Your task to perform on an android device: Clear the cart on ebay.com. Search for usb-a to usb-b on ebay.com, select the first entry, add it to the cart, then select checkout. Image 0: 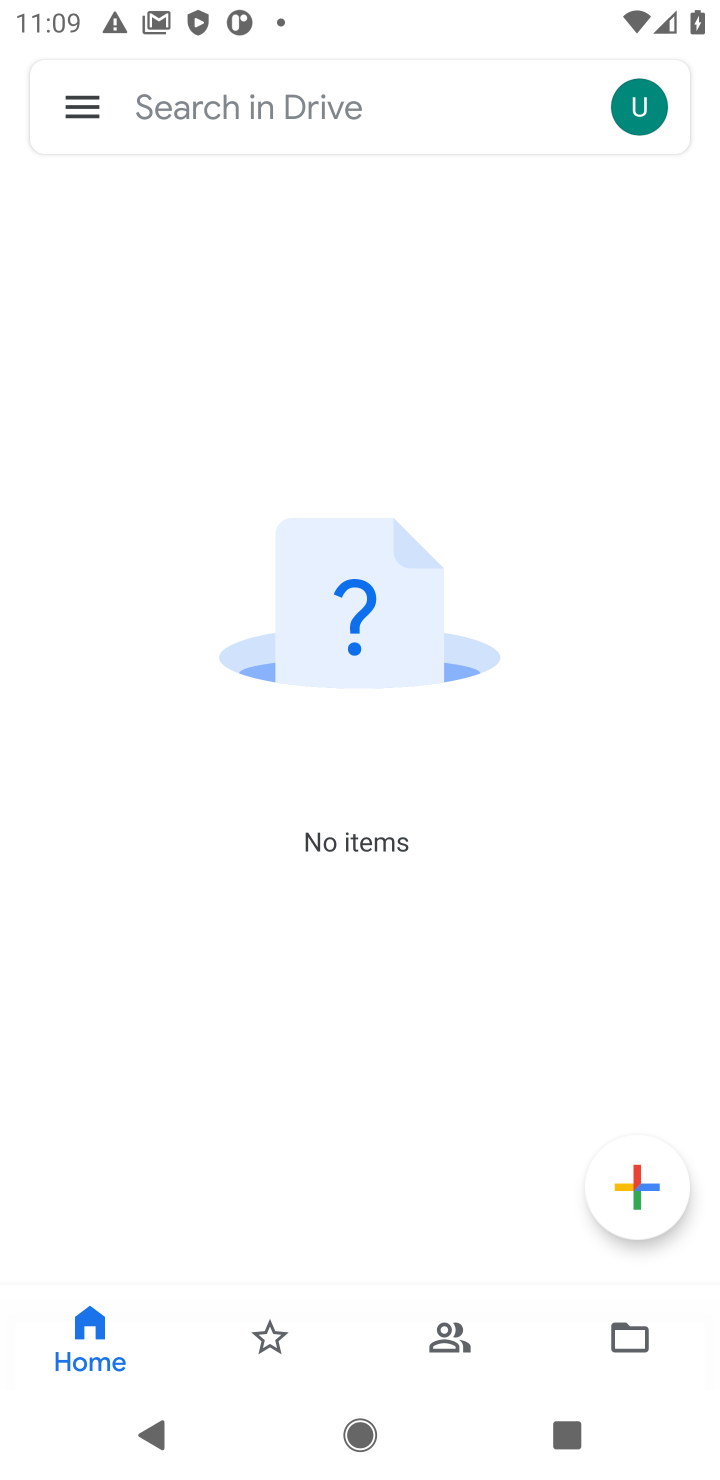
Step 0: press home button
Your task to perform on an android device: Clear the cart on ebay.com. Search for usb-a to usb-b on ebay.com, select the first entry, add it to the cart, then select checkout. Image 1: 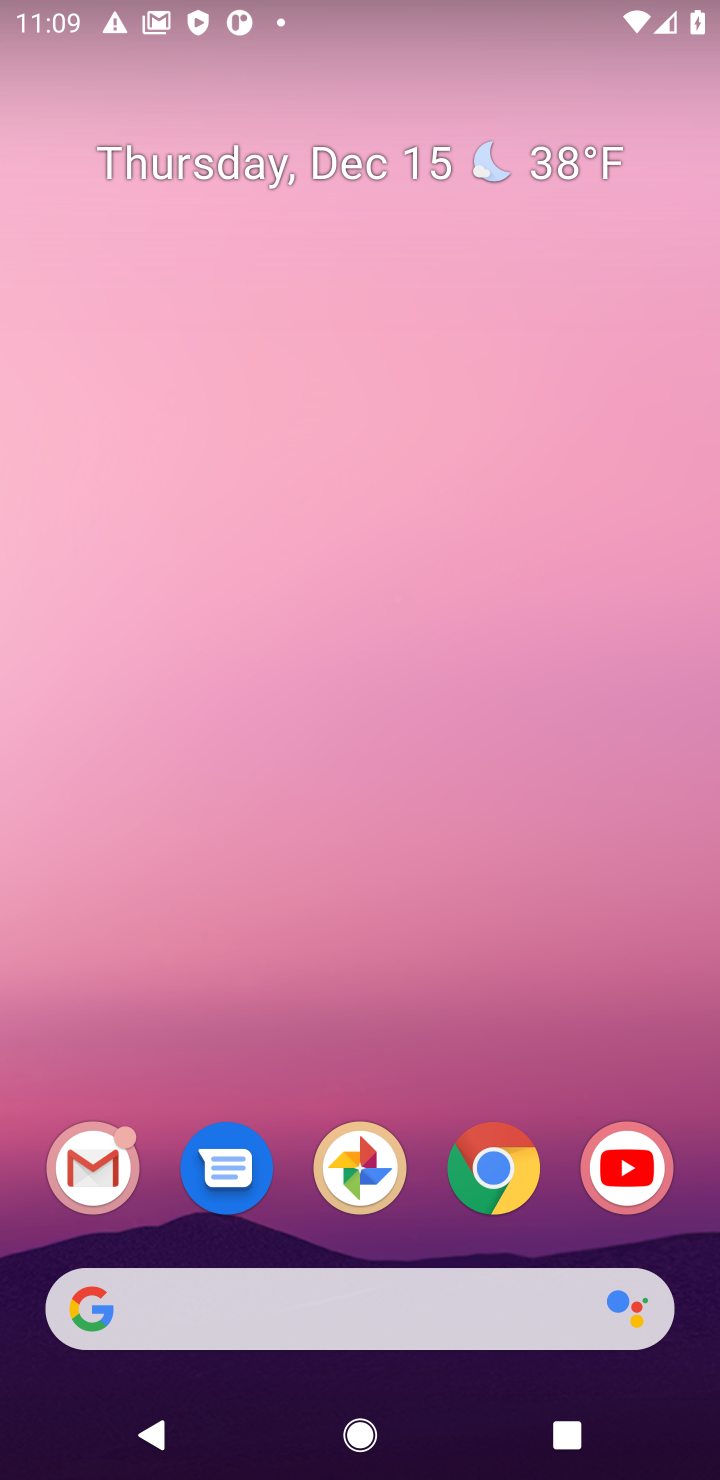
Step 1: click (493, 1175)
Your task to perform on an android device: Clear the cart on ebay.com. Search for usb-a to usb-b on ebay.com, select the first entry, add it to the cart, then select checkout. Image 2: 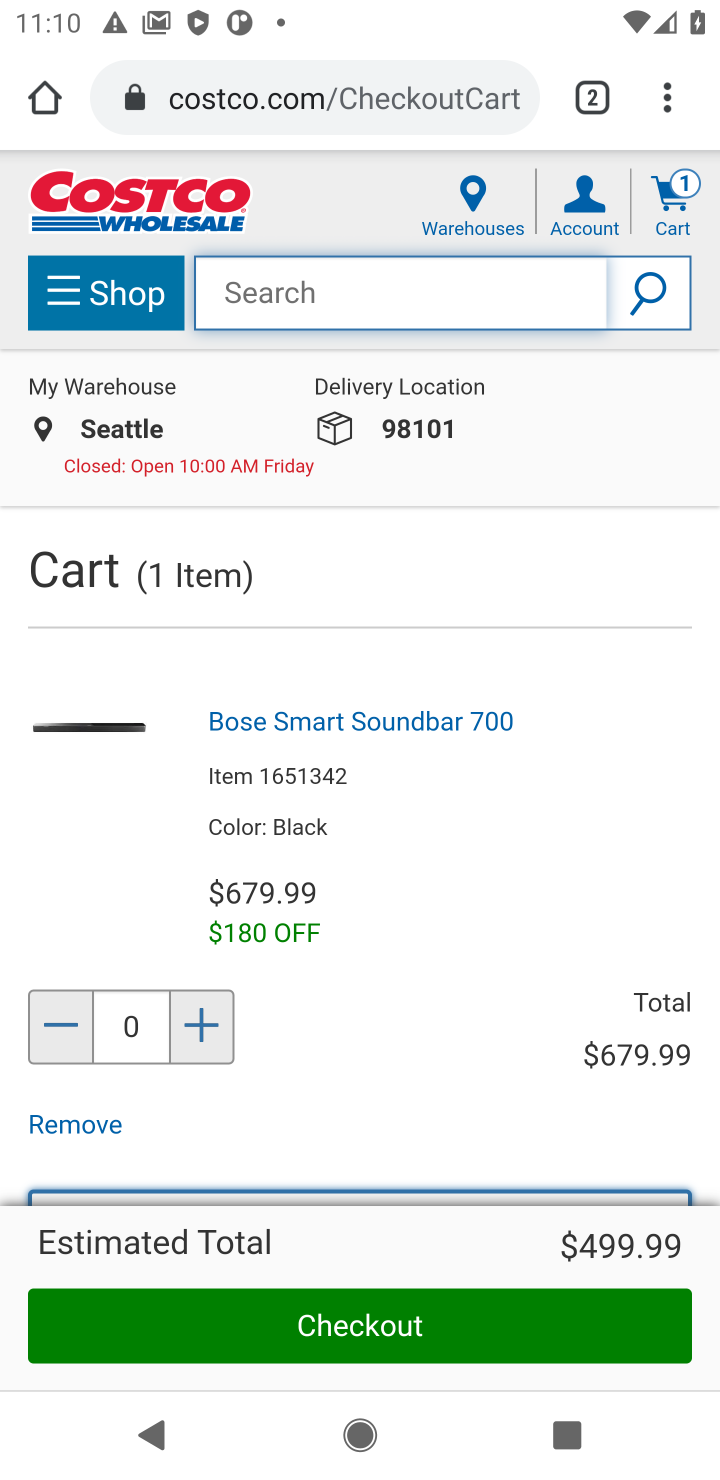
Step 2: click (354, 81)
Your task to perform on an android device: Clear the cart on ebay.com. Search for usb-a to usb-b on ebay.com, select the first entry, add it to the cart, then select checkout. Image 3: 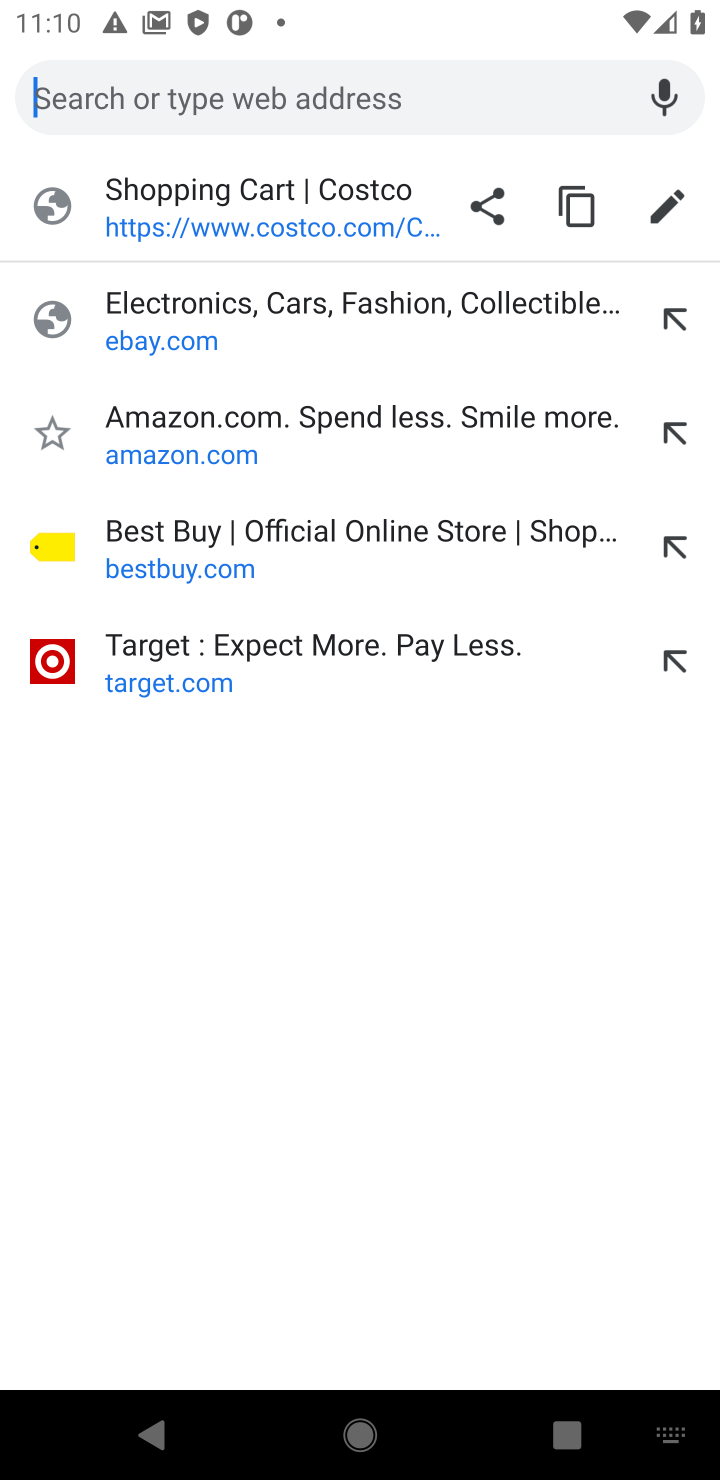
Step 3: type "ebay"
Your task to perform on an android device: Clear the cart on ebay.com. Search for usb-a to usb-b on ebay.com, select the first entry, add it to the cart, then select checkout. Image 4: 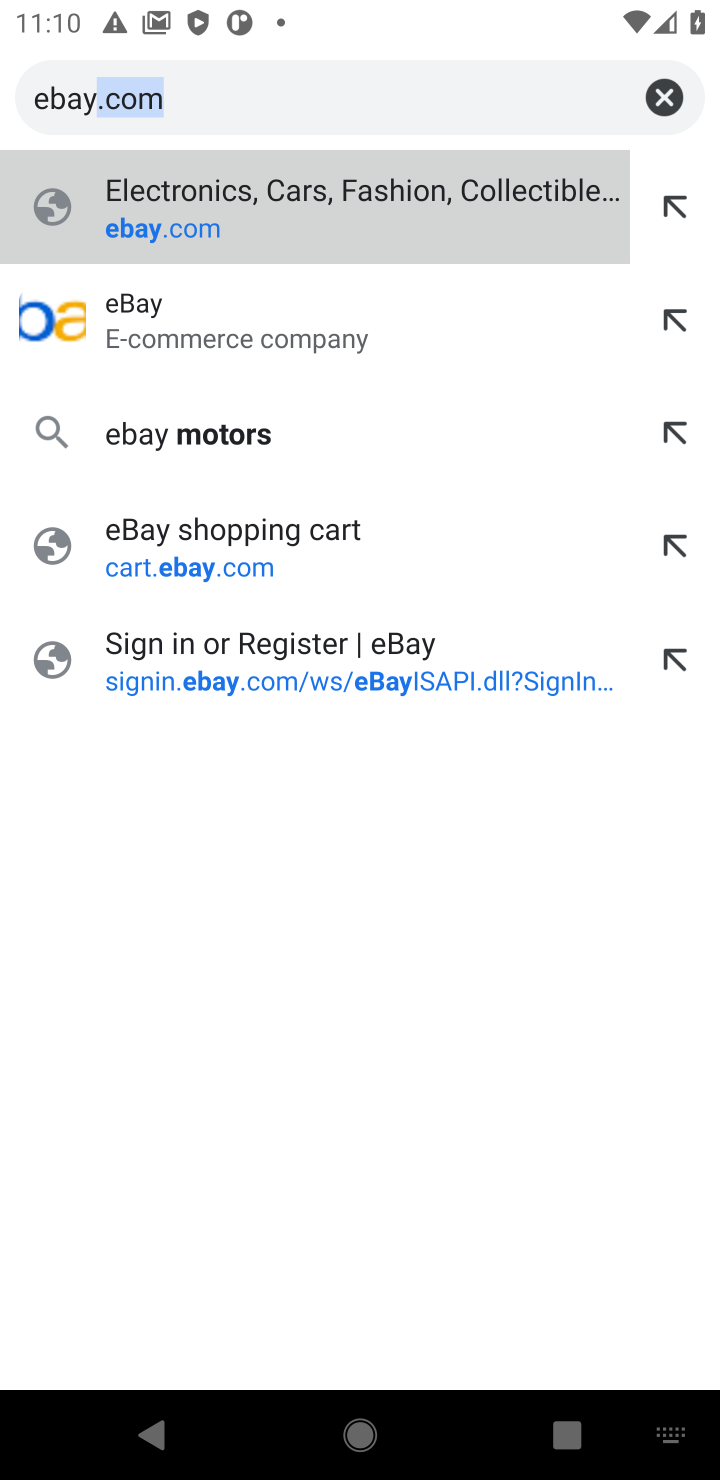
Step 4: click (262, 211)
Your task to perform on an android device: Clear the cart on ebay.com. Search for usb-a to usb-b on ebay.com, select the first entry, add it to the cart, then select checkout. Image 5: 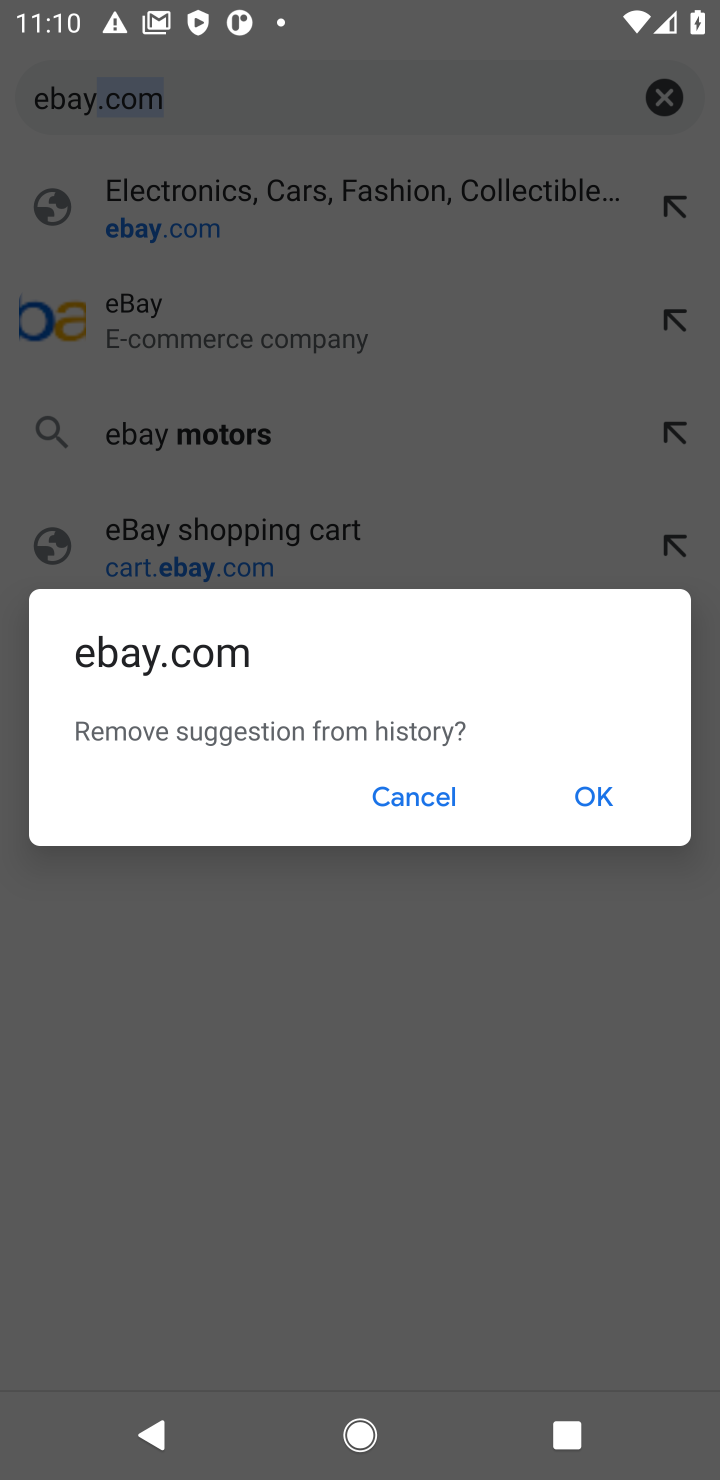
Step 5: click (419, 793)
Your task to perform on an android device: Clear the cart on ebay.com. Search for usb-a to usb-b on ebay.com, select the first entry, add it to the cart, then select checkout. Image 6: 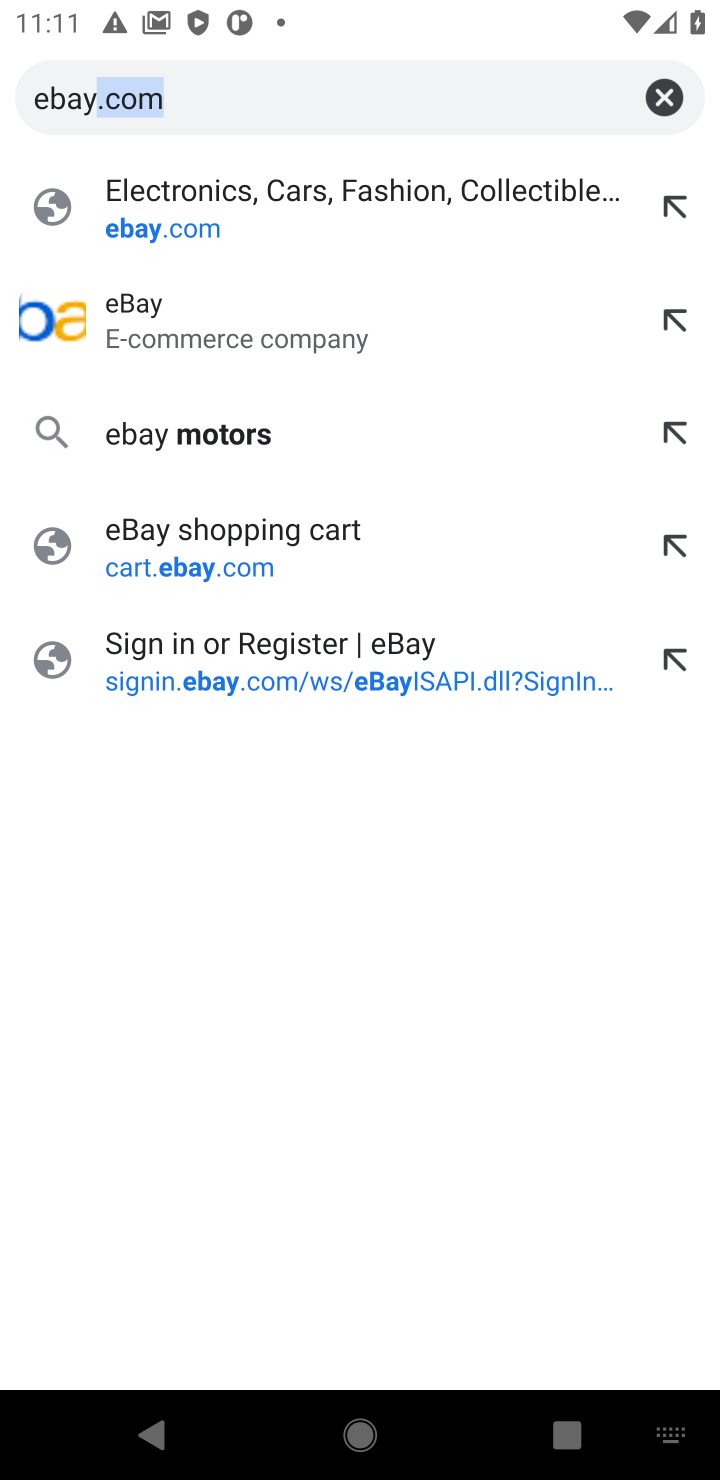
Step 6: click (225, 197)
Your task to perform on an android device: Clear the cart on ebay.com. Search for usb-a to usb-b on ebay.com, select the first entry, add it to the cart, then select checkout. Image 7: 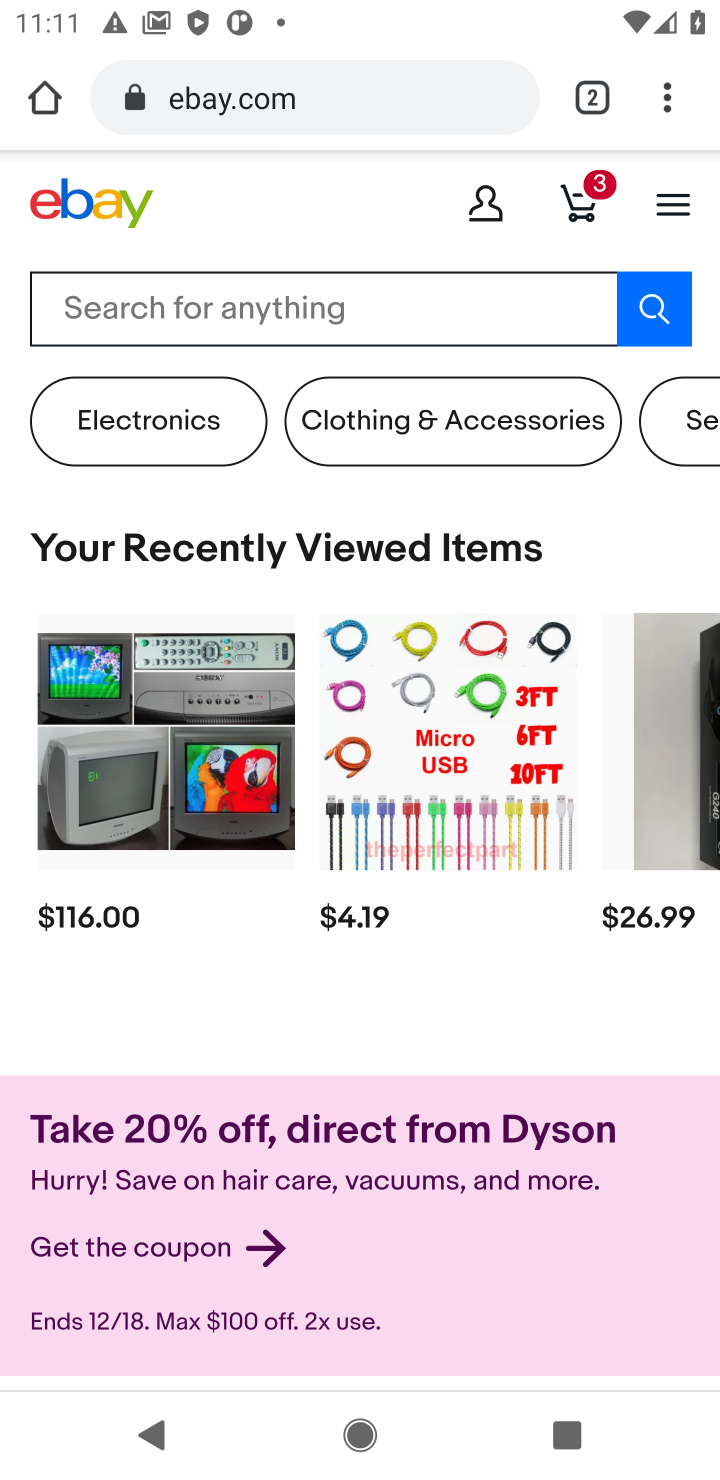
Step 7: click (305, 295)
Your task to perform on an android device: Clear the cart on ebay.com. Search for usb-a to usb-b on ebay.com, select the first entry, add it to the cart, then select checkout. Image 8: 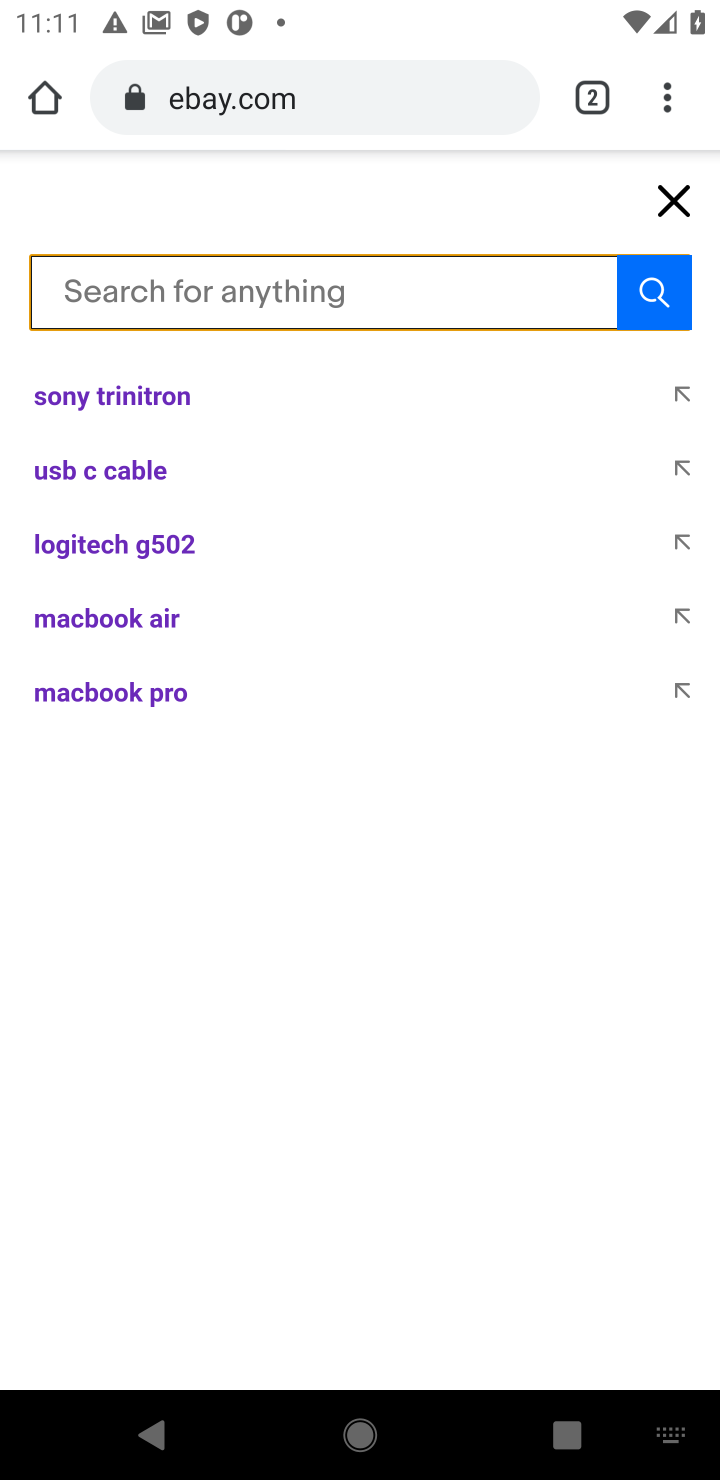
Step 8: type "usb-a to usb-b"
Your task to perform on an android device: Clear the cart on ebay.com. Search for usb-a to usb-b on ebay.com, select the first entry, add it to the cart, then select checkout. Image 9: 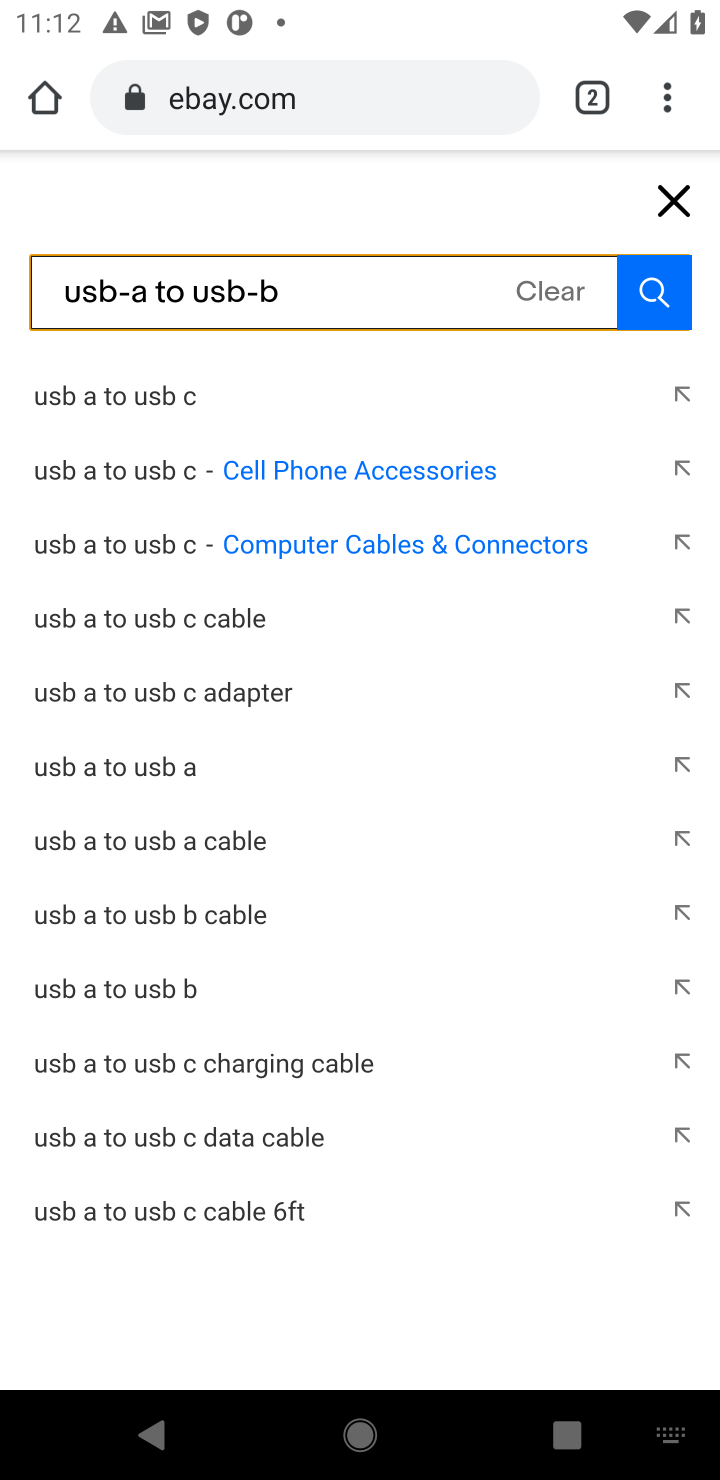
Step 9: click (119, 398)
Your task to perform on an android device: Clear the cart on ebay.com. Search for usb-a to usb-b on ebay.com, select the first entry, add it to the cart, then select checkout. Image 10: 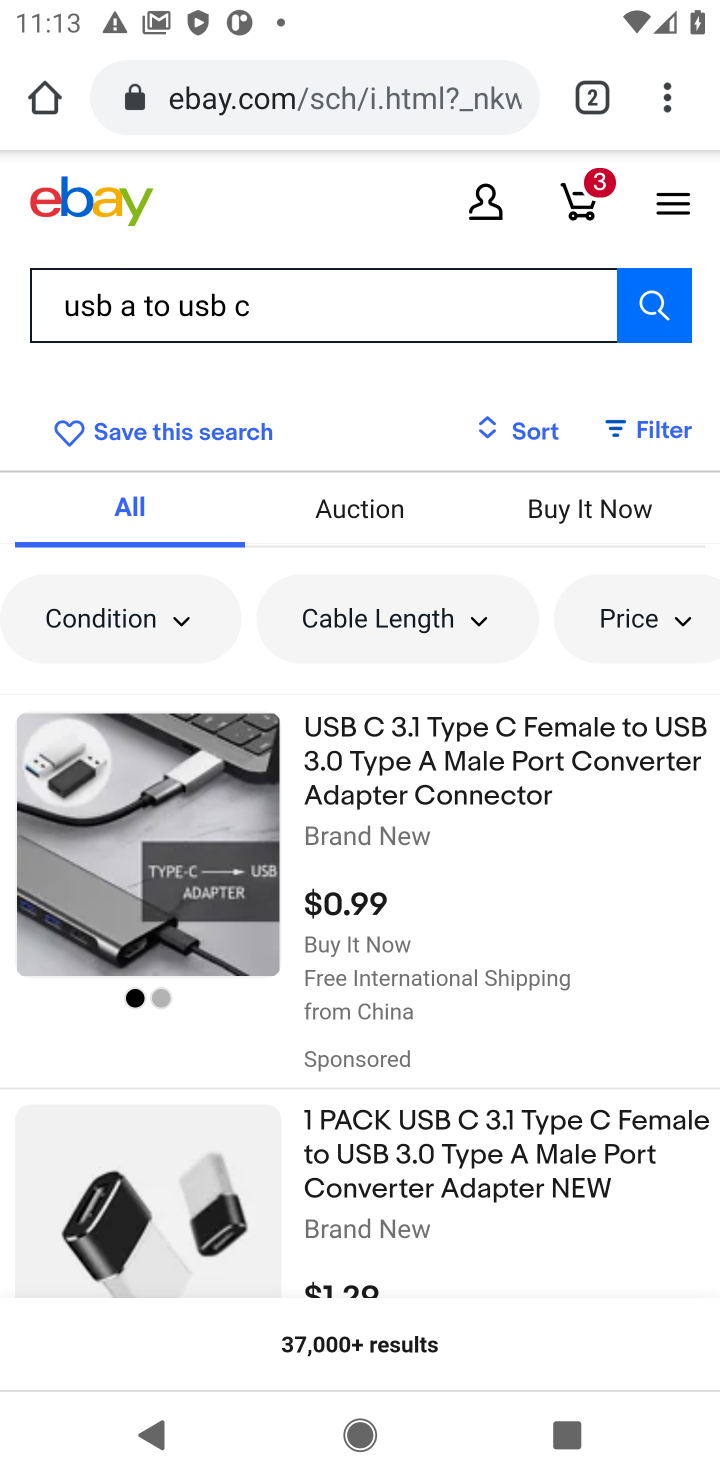
Step 10: click (572, 797)
Your task to perform on an android device: Clear the cart on ebay.com. Search for usb-a to usb-b on ebay.com, select the first entry, add it to the cart, then select checkout. Image 11: 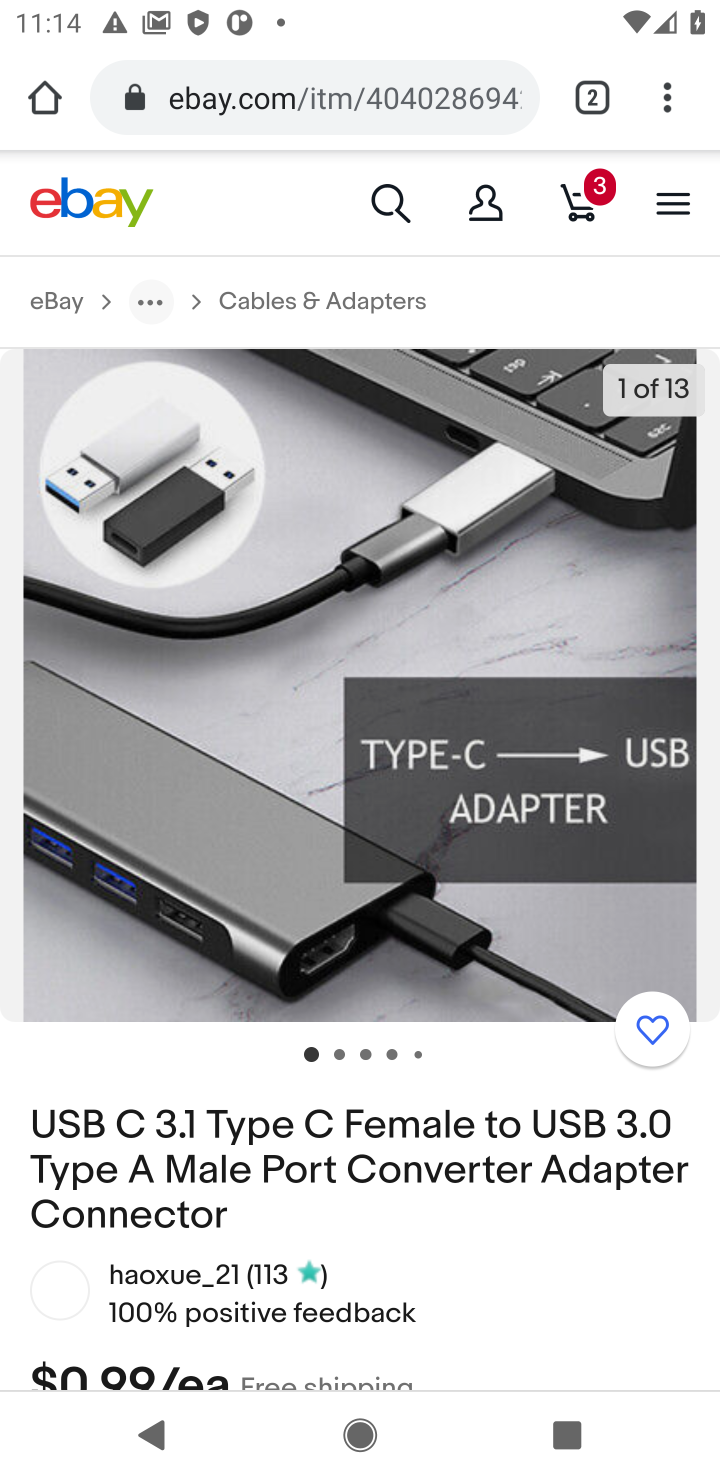
Step 11: drag from (537, 1278) to (530, 232)
Your task to perform on an android device: Clear the cart on ebay.com. Search for usb-a to usb-b on ebay.com, select the first entry, add it to the cart, then select checkout. Image 12: 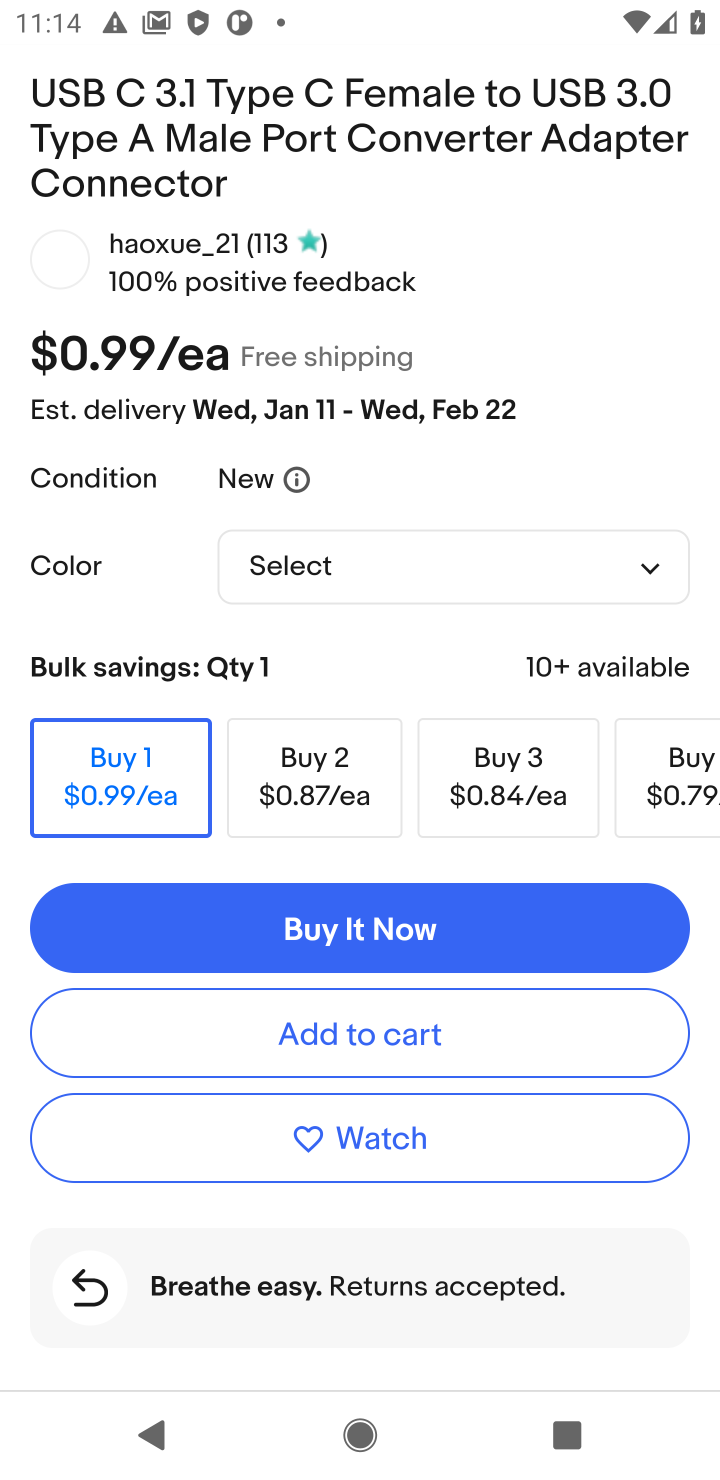
Step 12: click (345, 1028)
Your task to perform on an android device: Clear the cart on ebay.com. Search for usb-a to usb-b on ebay.com, select the first entry, add it to the cart, then select checkout. Image 13: 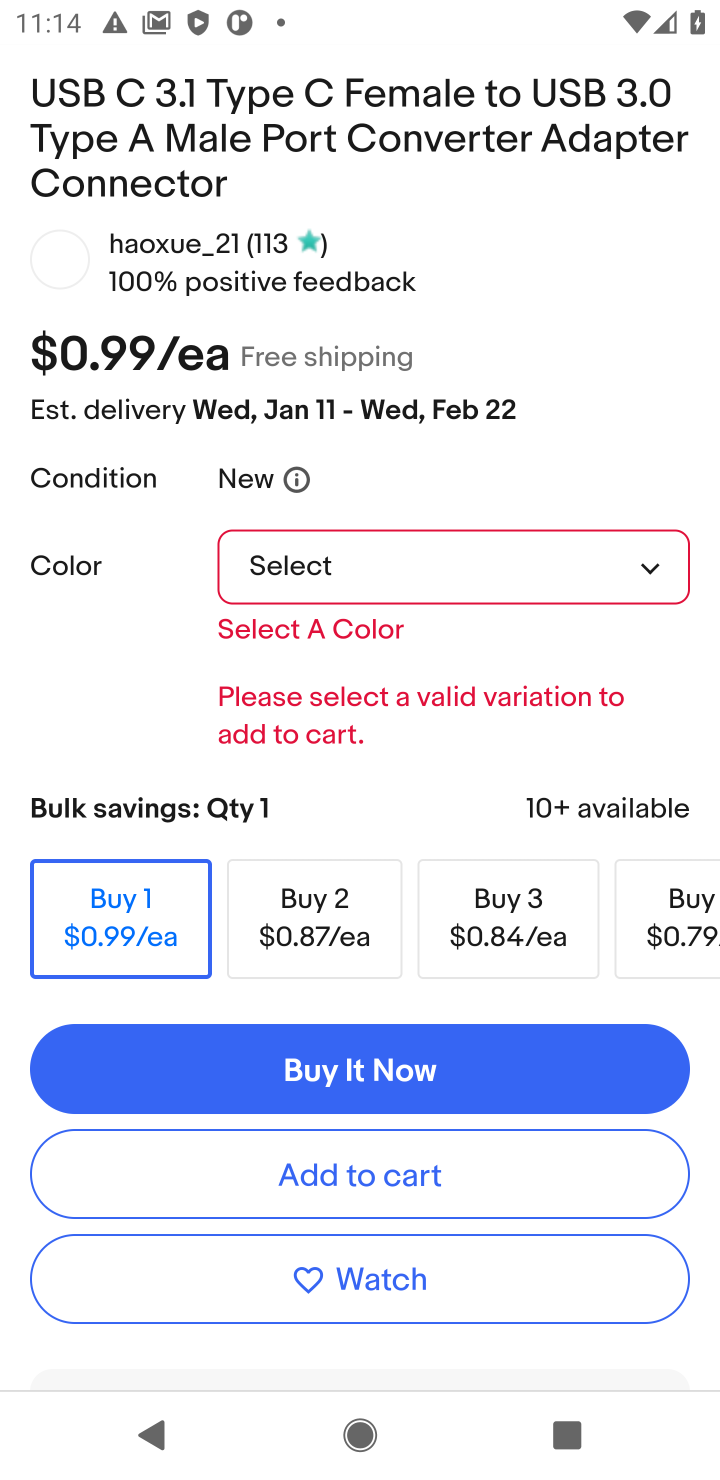
Step 13: click (613, 582)
Your task to perform on an android device: Clear the cart on ebay.com. Search for usb-a to usb-b on ebay.com, select the first entry, add it to the cart, then select checkout. Image 14: 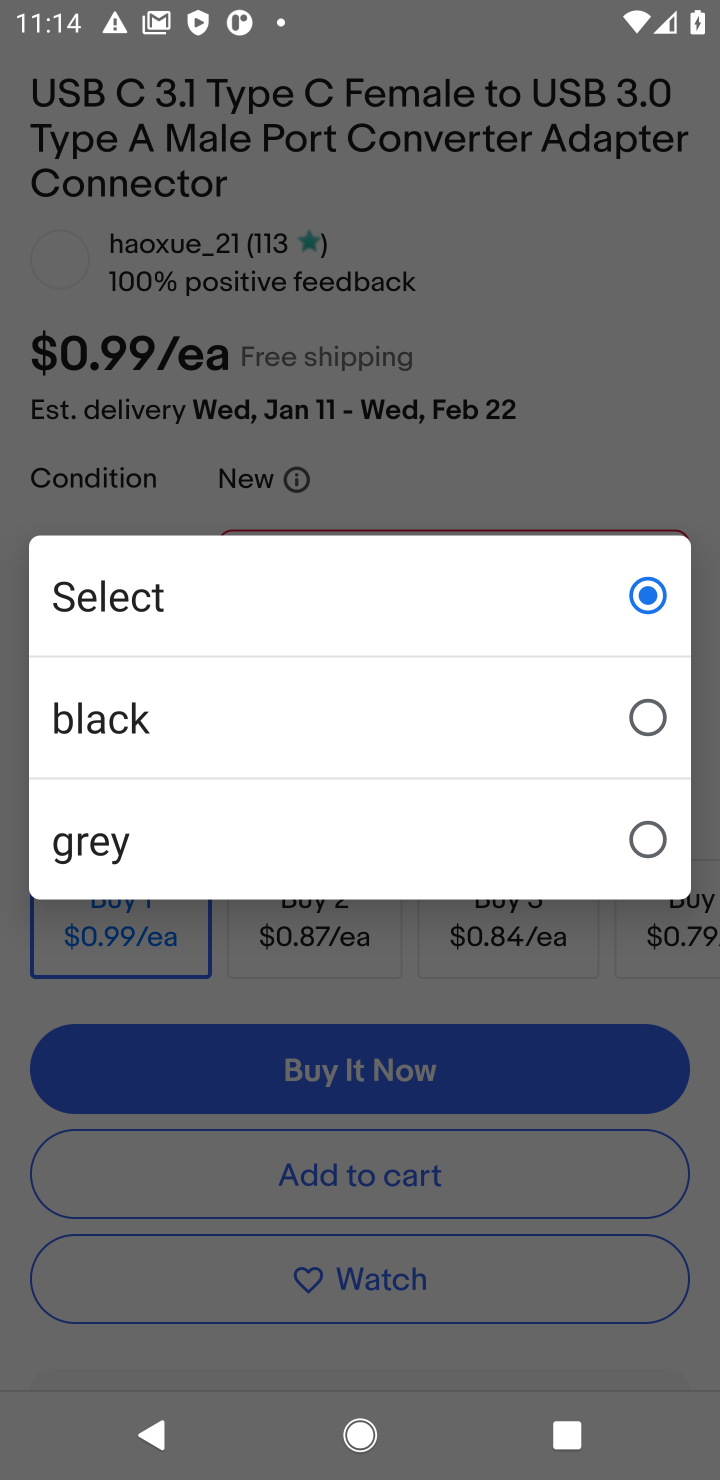
Step 14: click (319, 703)
Your task to perform on an android device: Clear the cart on ebay.com. Search for usb-a to usb-b on ebay.com, select the first entry, add it to the cart, then select checkout. Image 15: 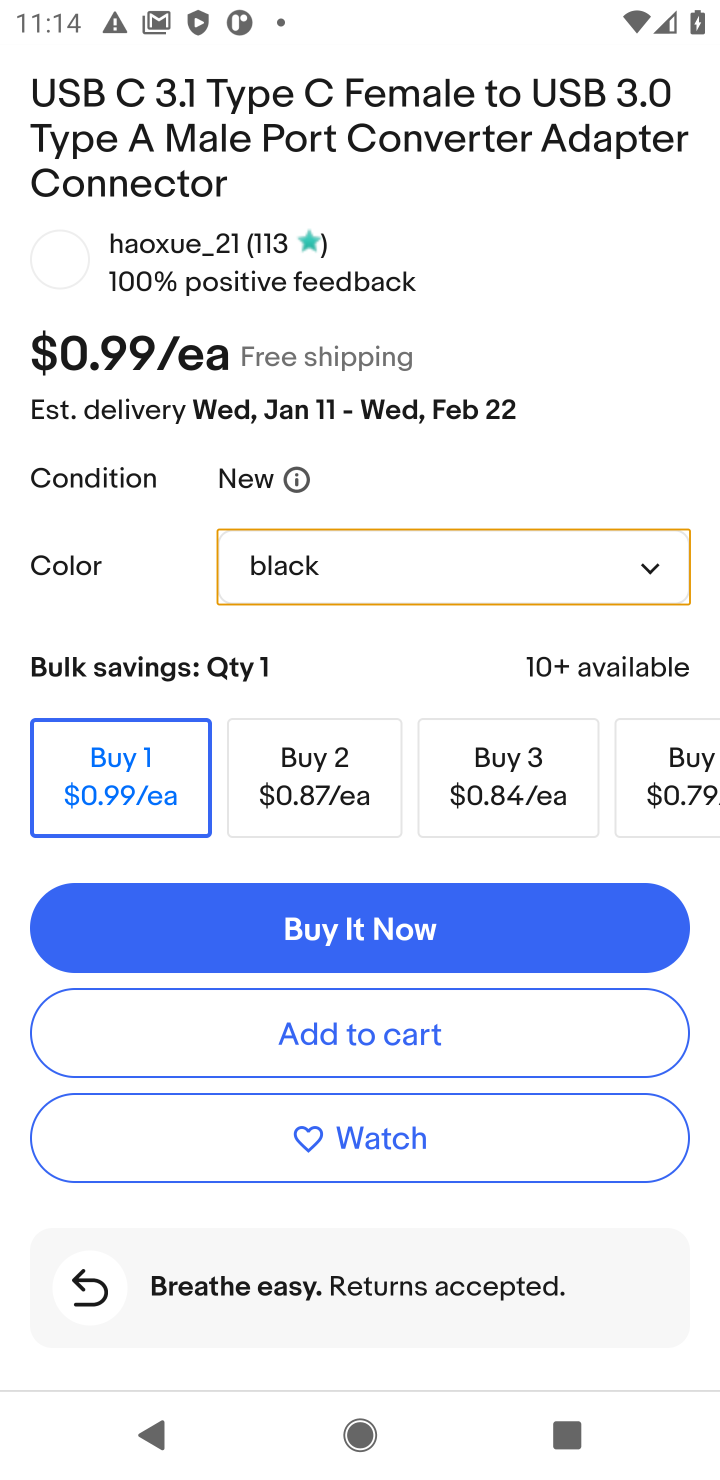
Step 15: click (433, 1034)
Your task to perform on an android device: Clear the cart on ebay.com. Search for usb-a to usb-b on ebay.com, select the first entry, add it to the cart, then select checkout. Image 16: 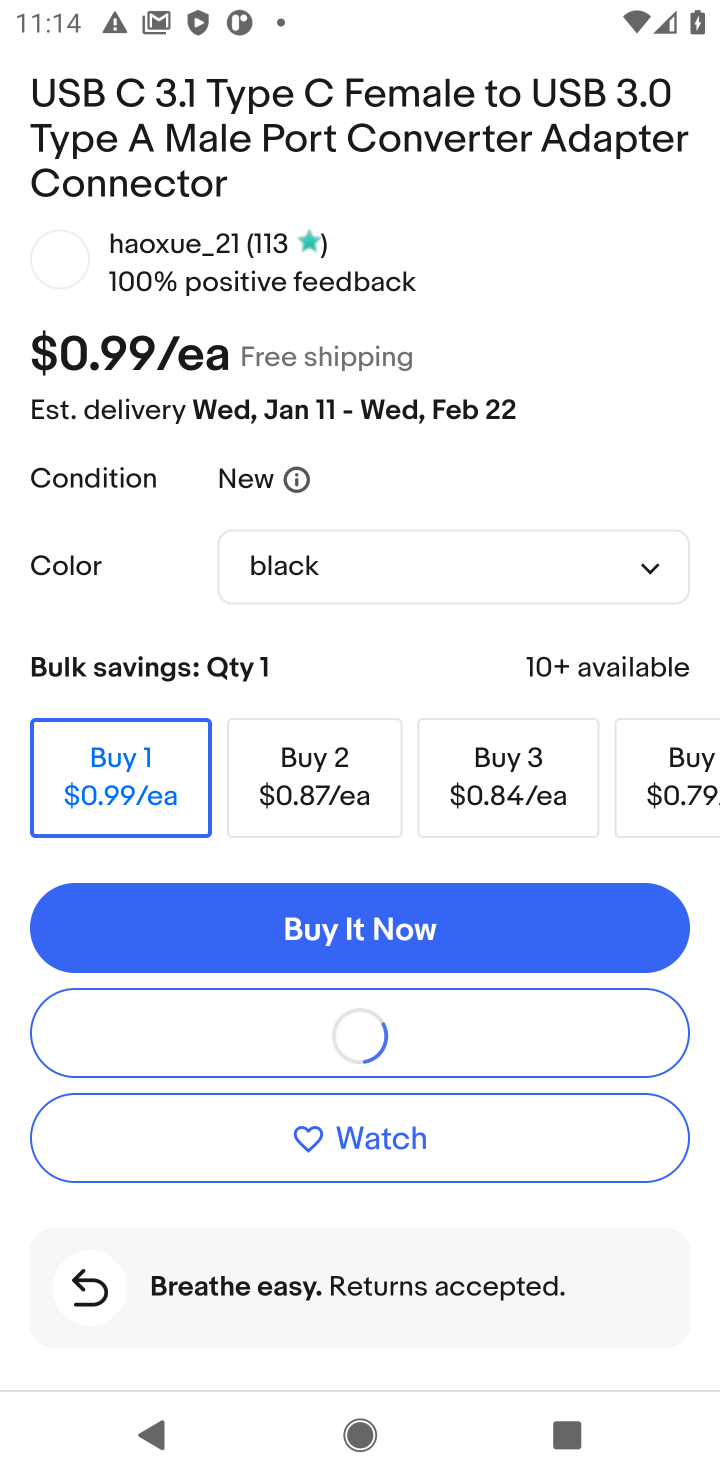
Step 16: click (433, 1034)
Your task to perform on an android device: Clear the cart on ebay.com. Search for usb-a to usb-b on ebay.com, select the first entry, add it to the cart, then select checkout. Image 17: 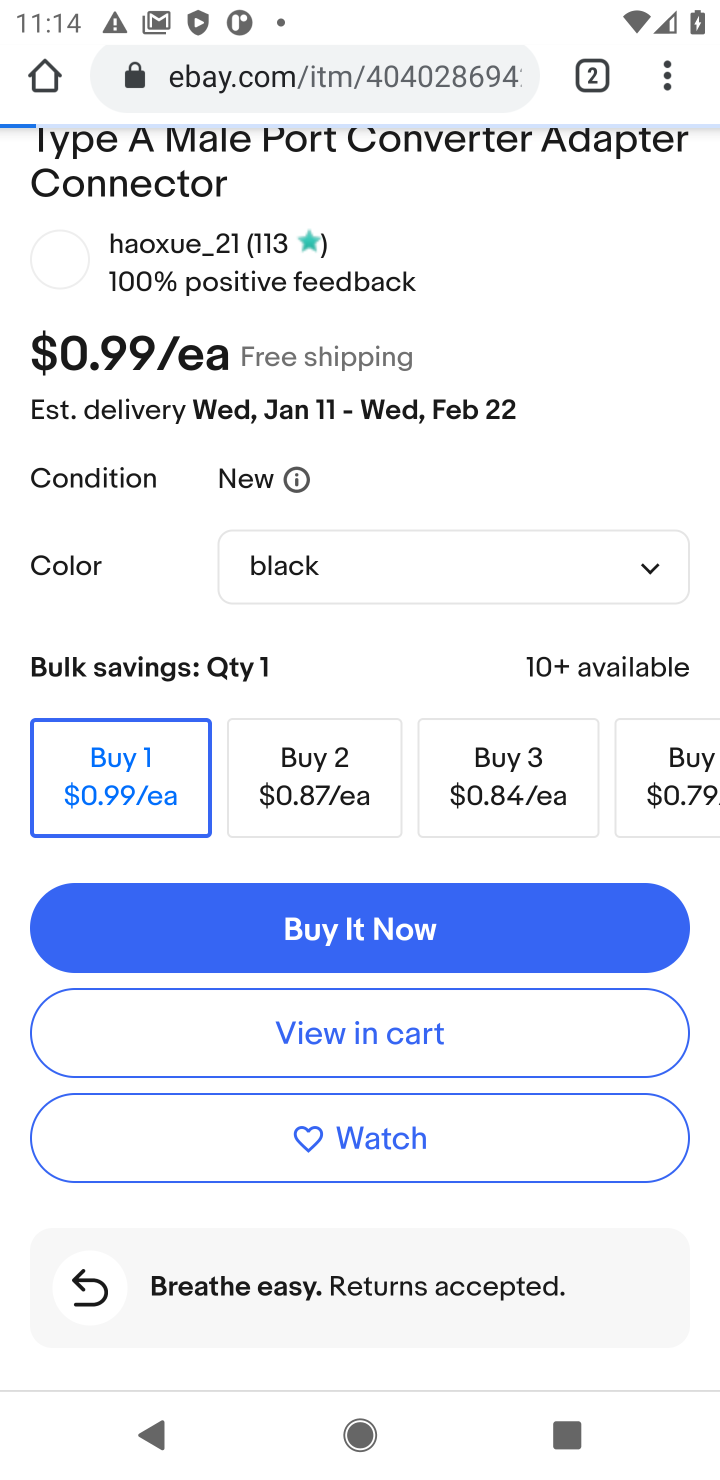
Step 17: click (433, 1034)
Your task to perform on an android device: Clear the cart on ebay.com. Search for usb-a to usb-b on ebay.com, select the first entry, add it to the cart, then select checkout. Image 18: 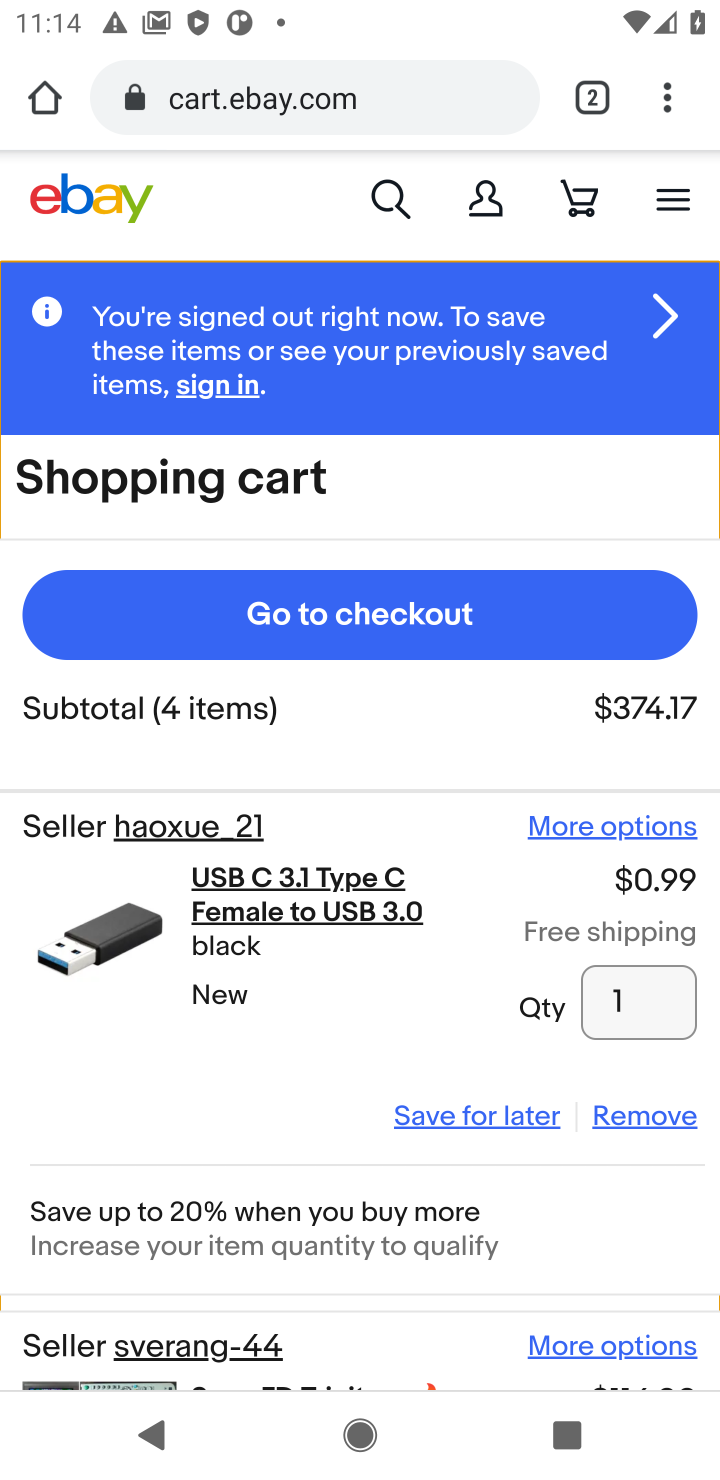
Step 18: click (393, 618)
Your task to perform on an android device: Clear the cart on ebay.com. Search for usb-a to usb-b on ebay.com, select the first entry, add it to the cart, then select checkout. Image 19: 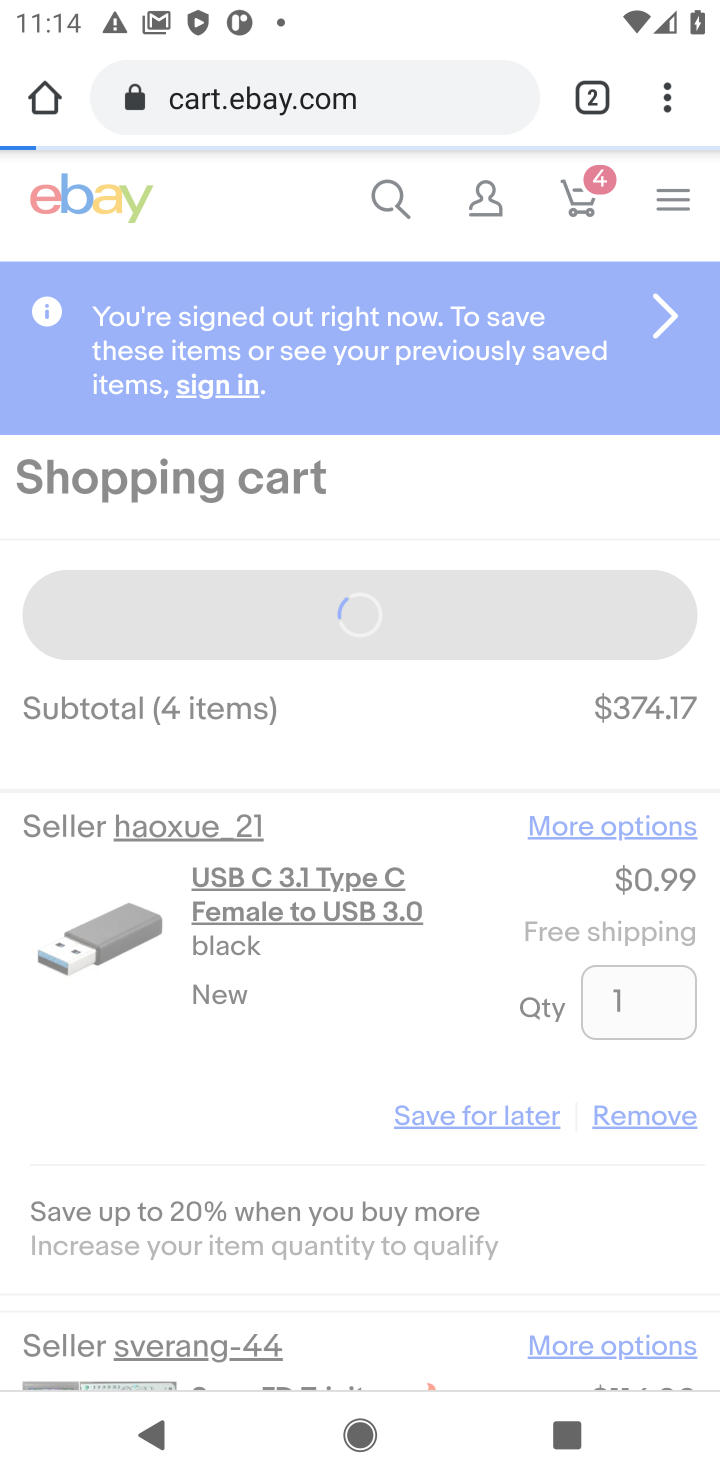
Step 19: task complete